Your task to perform on an android device: toggle javascript in the chrome app Image 0: 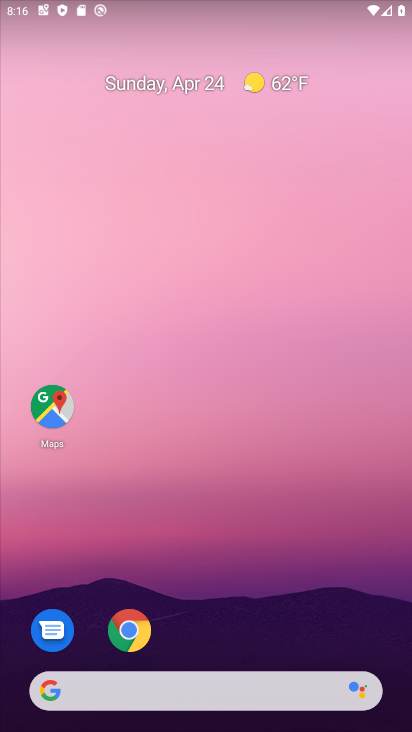
Step 0: drag from (284, 522) to (289, 12)
Your task to perform on an android device: toggle javascript in the chrome app Image 1: 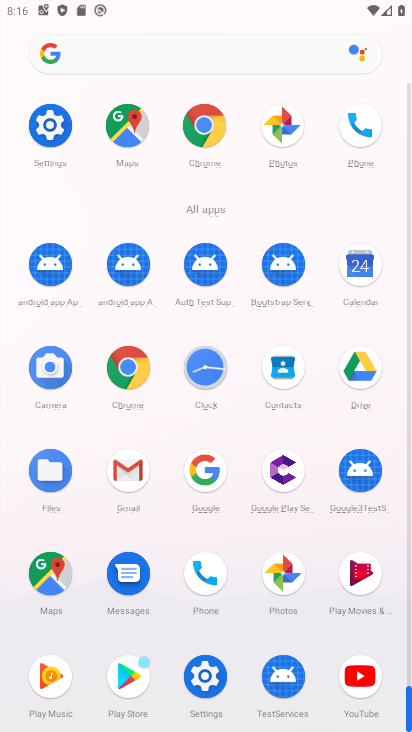
Step 1: drag from (22, 483) to (30, 252)
Your task to perform on an android device: toggle javascript in the chrome app Image 2: 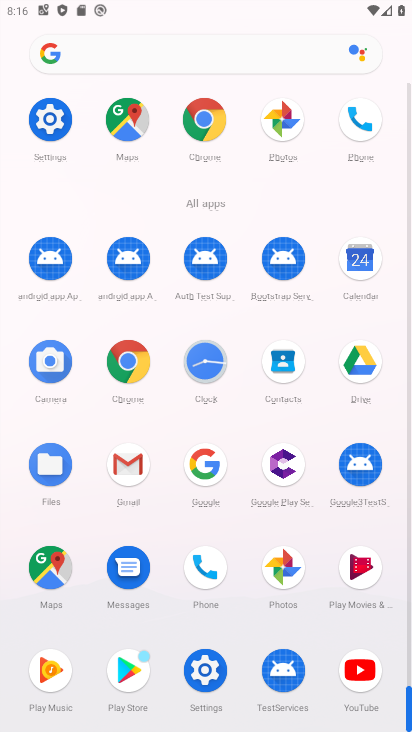
Step 2: click (127, 363)
Your task to perform on an android device: toggle javascript in the chrome app Image 3: 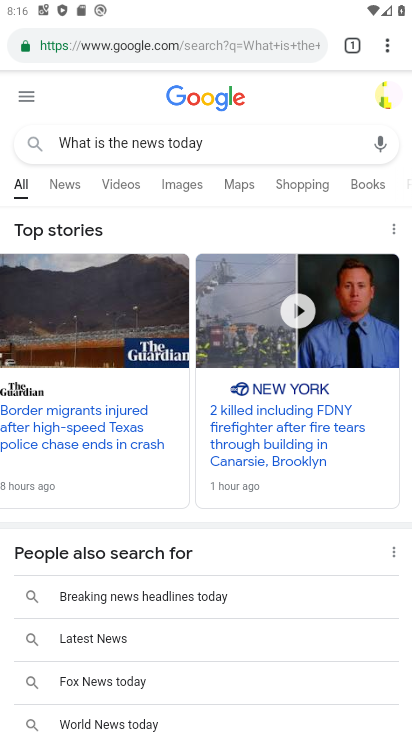
Step 3: drag from (385, 52) to (209, 550)
Your task to perform on an android device: toggle javascript in the chrome app Image 4: 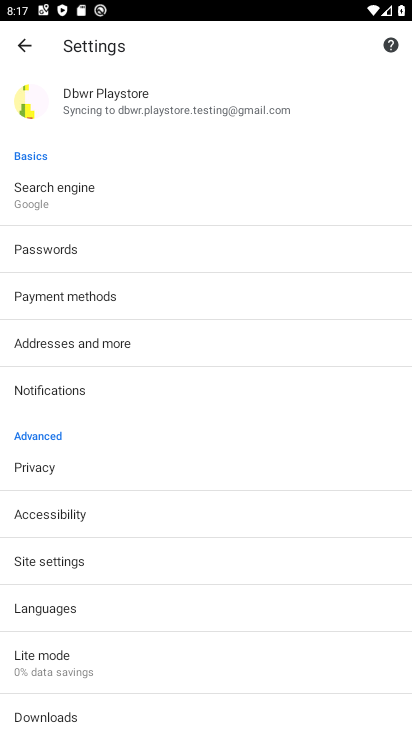
Step 4: click (97, 560)
Your task to perform on an android device: toggle javascript in the chrome app Image 5: 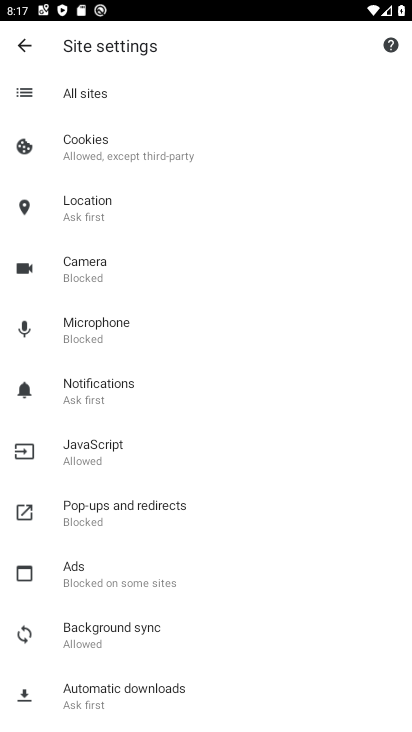
Step 5: click (127, 450)
Your task to perform on an android device: toggle javascript in the chrome app Image 6: 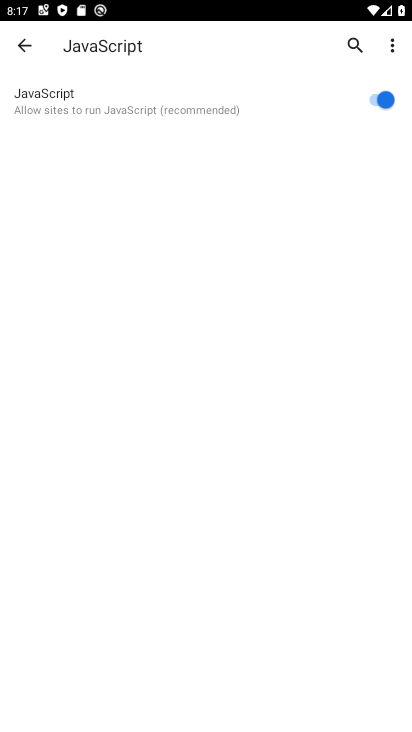
Step 6: click (367, 97)
Your task to perform on an android device: toggle javascript in the chrome app Image 7: 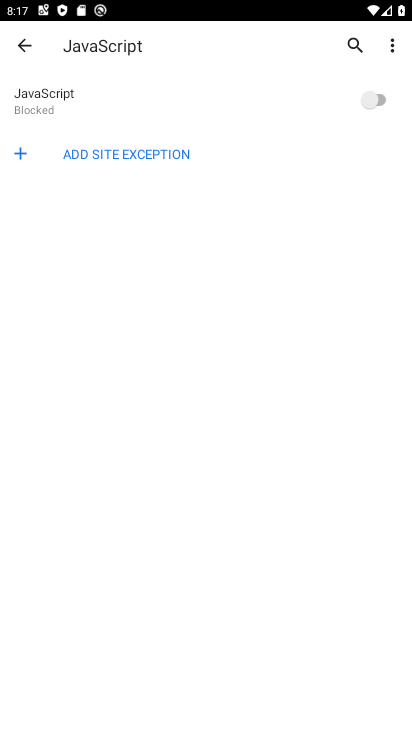
Step 7: task complete